Your task to perform on an android device: open app "Pinterest" Image 0: 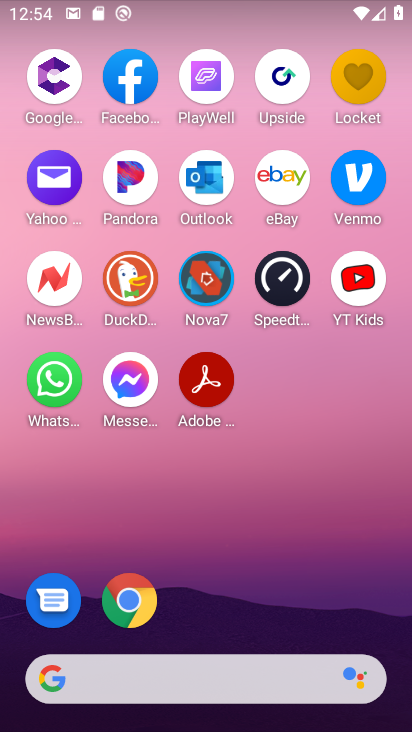
Step 0: drag from (273, 557) to (263, 131)
Your task to perform on an android device: open app "Pinterest" Image 1: 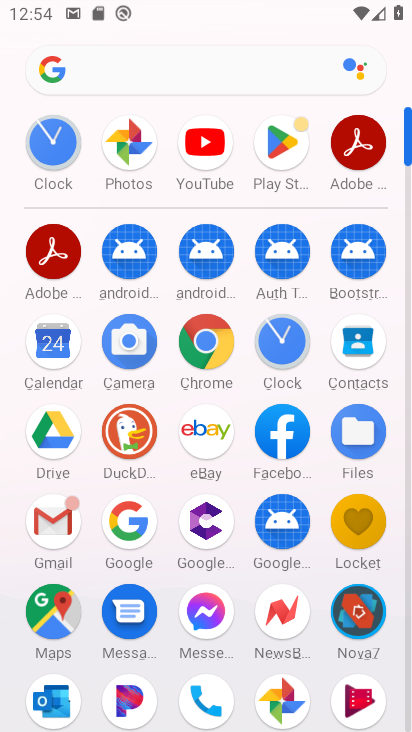
Step 1: click (270, 153)
Your task to perform on an android device: open app "Pinterest" Image 2: 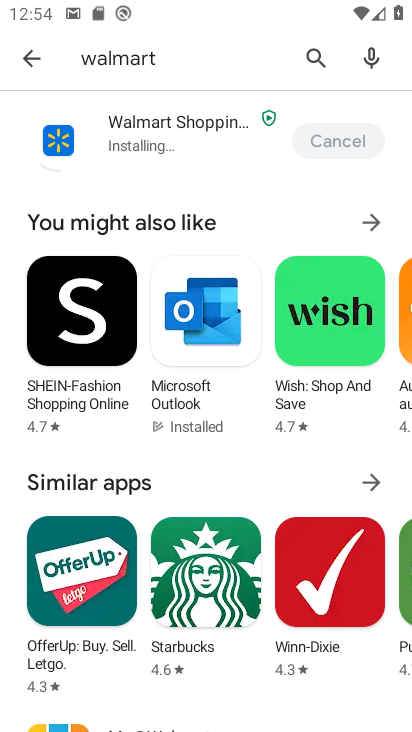
Step 2: click (311, 67)
Your task to perform on an android device: open app "Pinterest" Image 3: 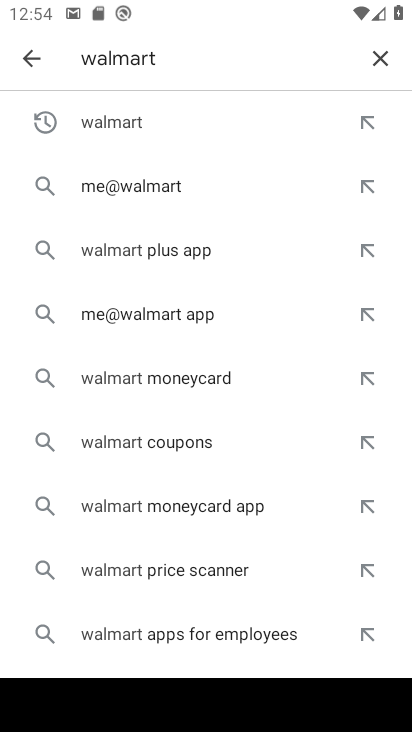
Step 3: click (373, 62)
Your task to perform on an android device: open app "Pinterest" Image 4: 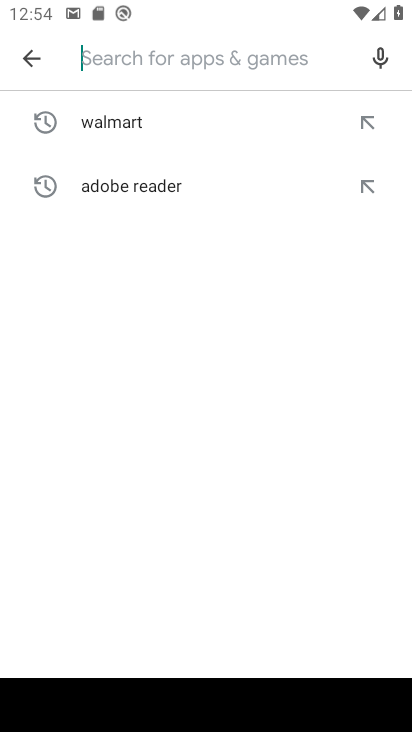
Step 4: type "pinterret"
Your task to perform on an android device: open app "Pinterest" Image 5: 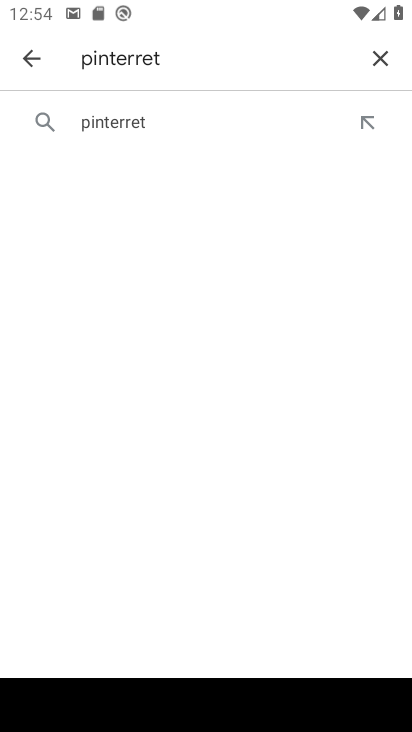
Step 5: click (216, 106)
Your task to perform on an android device: open app "Pinterest" Image 6: 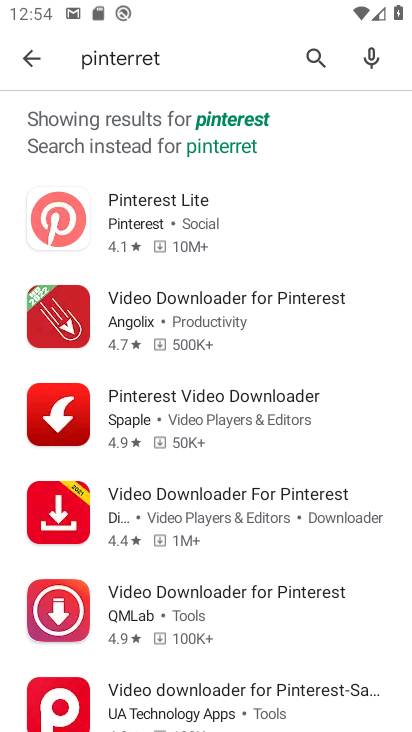
Step 6: click (231, 122)
Your task to perform on an android device: open app "Pinterest" Image 7: 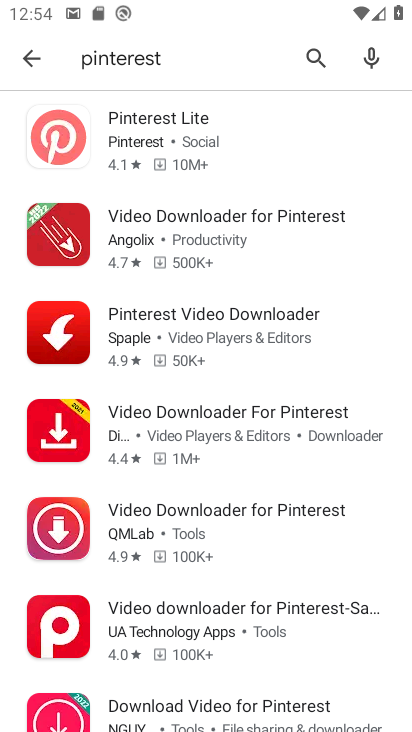
Step 7: click (173, 117)
Your task to perform on an android device: open app "Pinterest" Image 8: 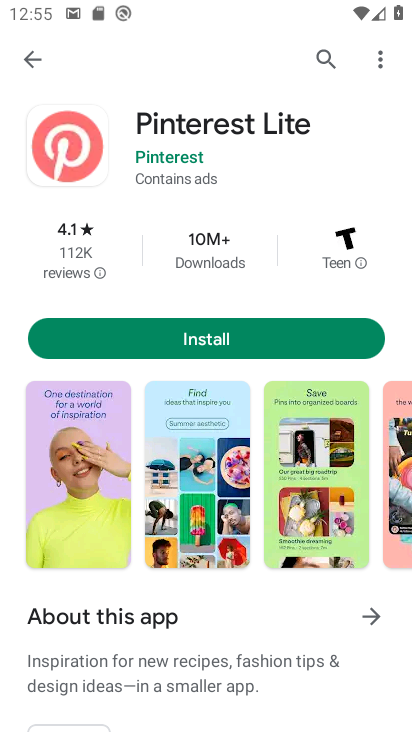
Step 8: click (191, 329)
Your task to perform on an android device: open app "Pinterest" Image 9: 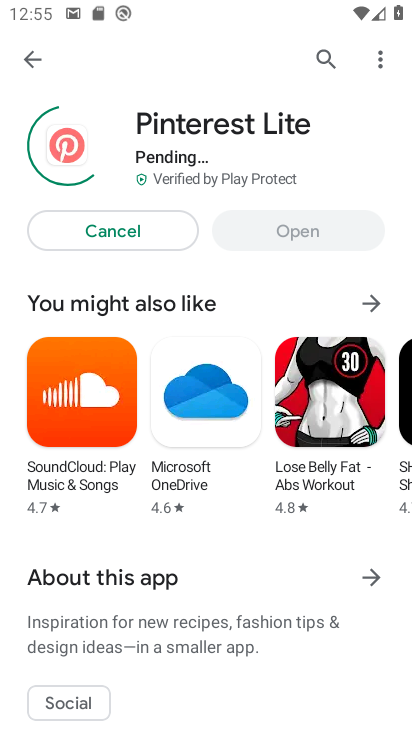
Step 9: task complete